Your task to perform on an android device: Search for vegetarian restaurants on Maps Image 0: 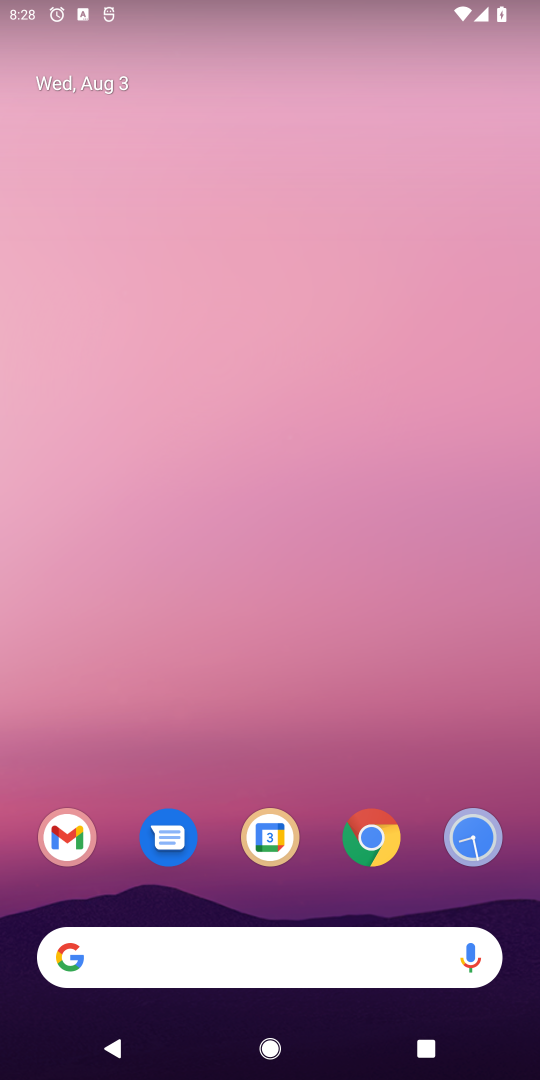
Step 0: press home button
Your task to perform on an android device: Search for vegetarian restaurants on Maps Image 1: 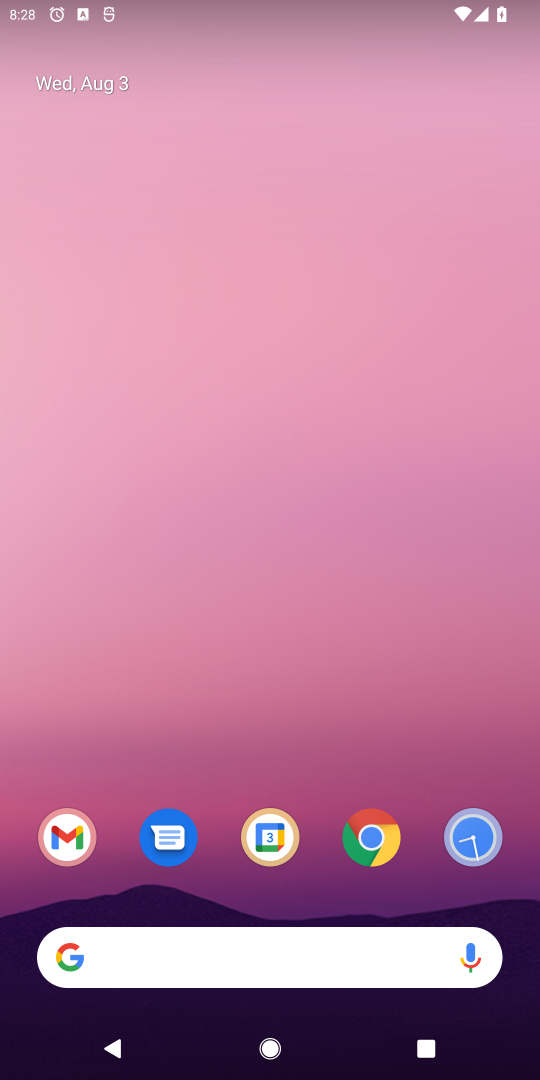
Step 1: drag from (330, 865) to (328, 26)
Your task to perform on an android device: Search for vegetarian restaurants on Maps Image 2: 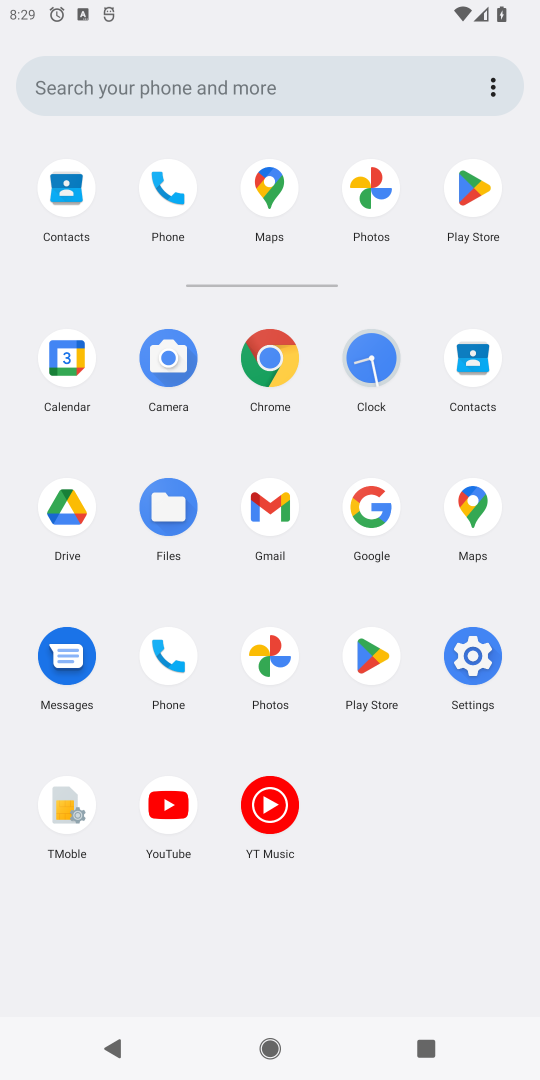
Step 2: click (470, 510)
Your task to perform on an android device: Search for vegetarian restaurants on Maps Image 3: 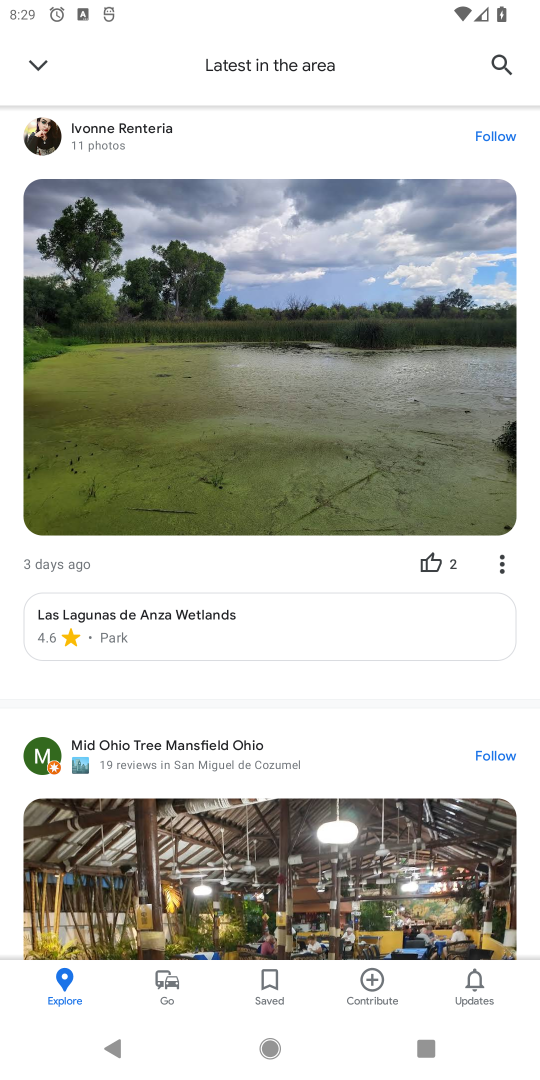
Step 3: click (500, 64)
Your task to perform on an android device: Search for vegetarian restaurants on Maps Image 4: 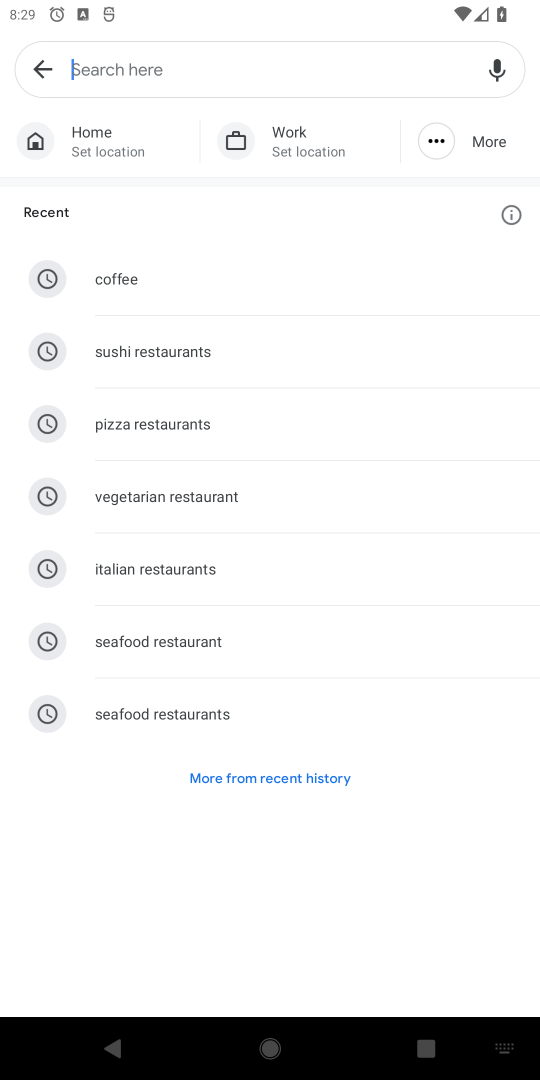
Step 4: click (179, 501)
Your task to perform on an android device: Search for vegetarian restaurants on Maps Image 5: 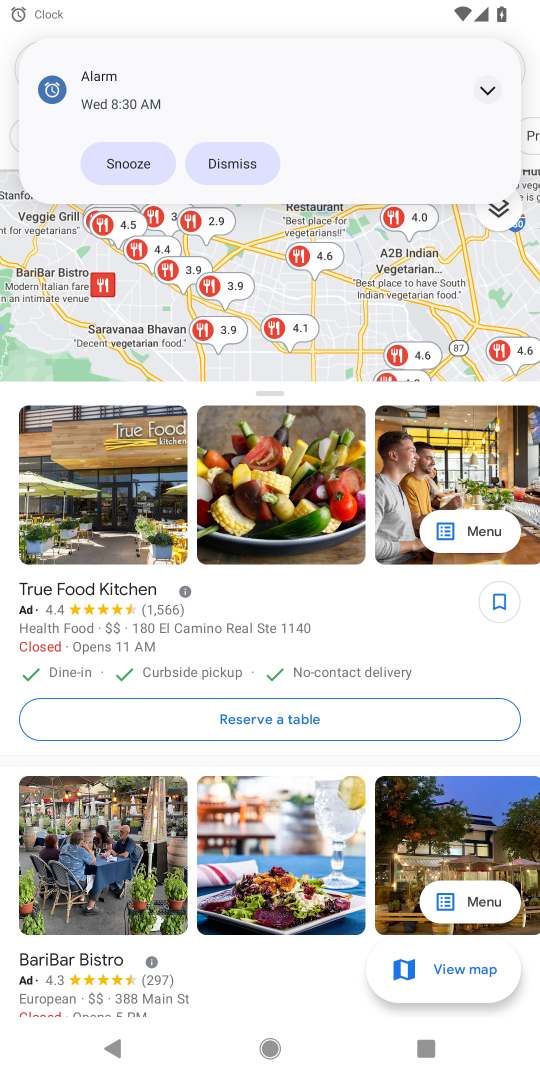
Step 5: click (484, 89)
Your task to perform on an android device: Search for vegetarian restaurants on Maps Image 6: 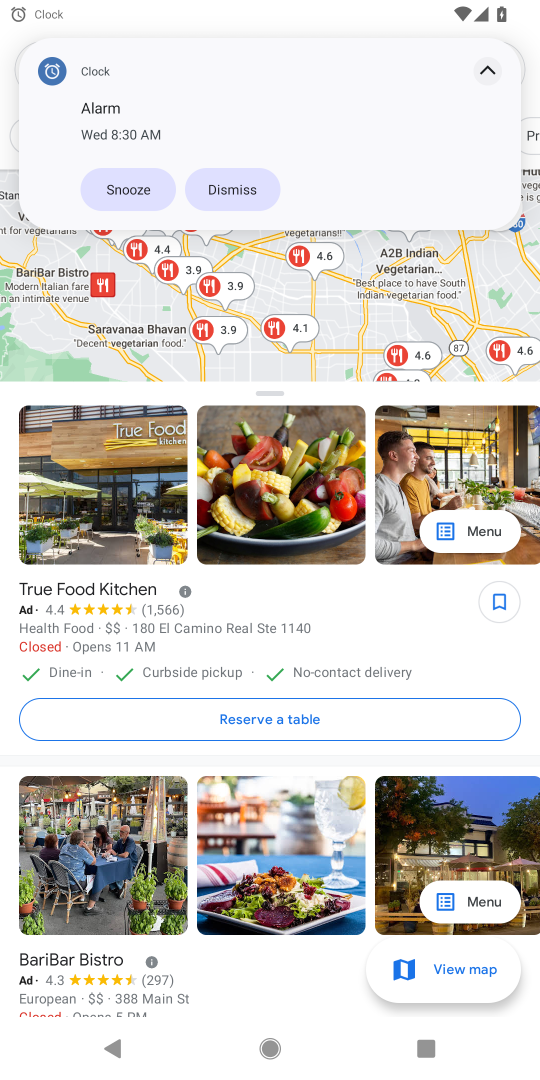
Step 6: click (492, 65)
Your task to perform on an android device: Search for vegetarian restaurants on Maps Image 7: 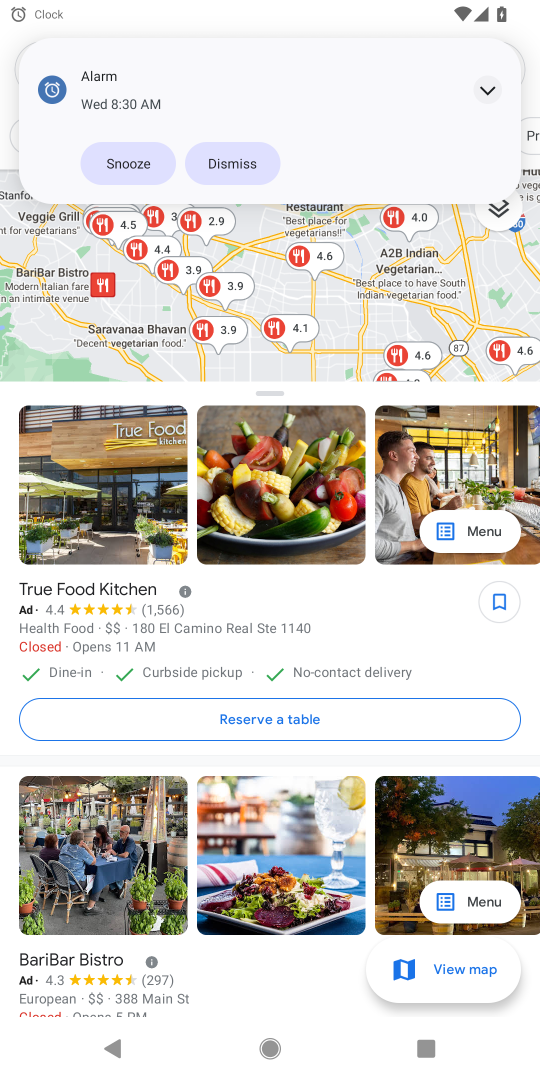
Step 7: click (242, 159)
Your task to perform on an android device: Search for vegetarian restaurants on Maps Image 8: 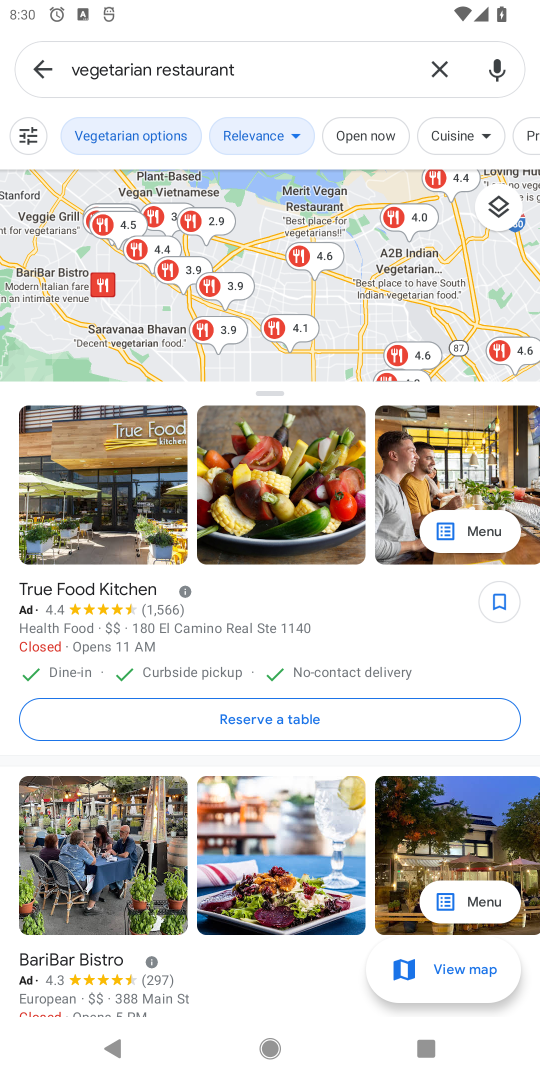
Step 8: task complete